Your task to perform on an android device: install app "DuckDuckGo Privacy Browser" Image 0: 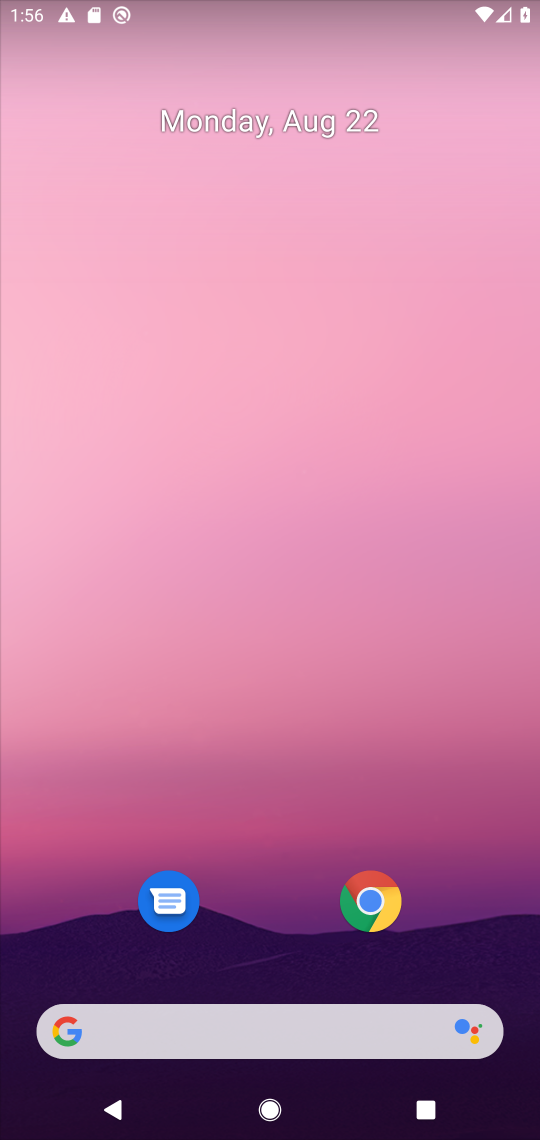
Step 0: drag from (504, 984) to (428, 189)
Your task to perform on an android device: install app "DuckDuckGo Privacy Browser" Image 1: 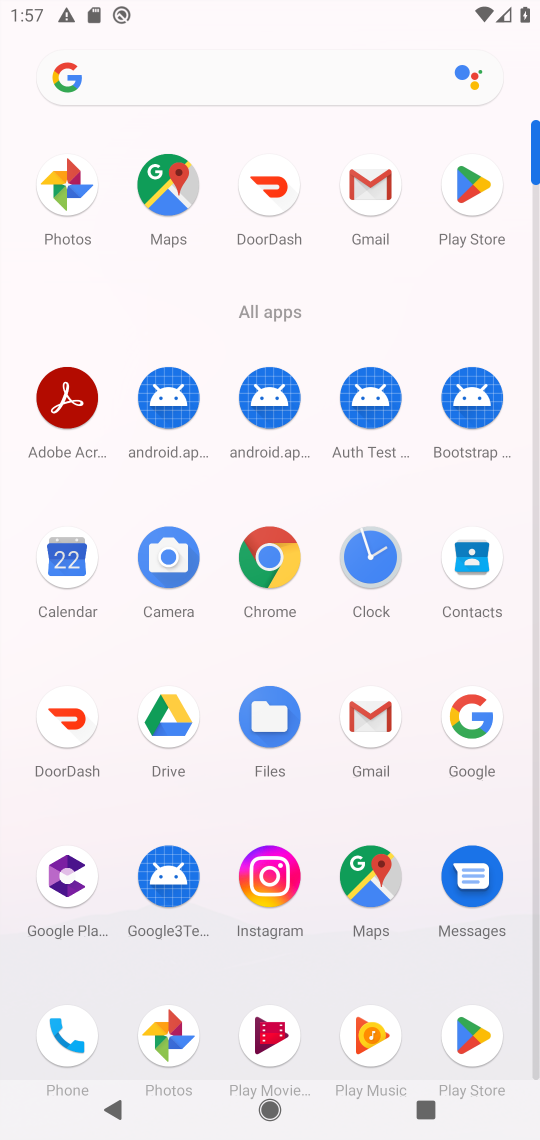
Step 1: click (468, 1037)
Your task to perform on an android device: install app "DuckDuckGo Privacy Browser" Image 2: 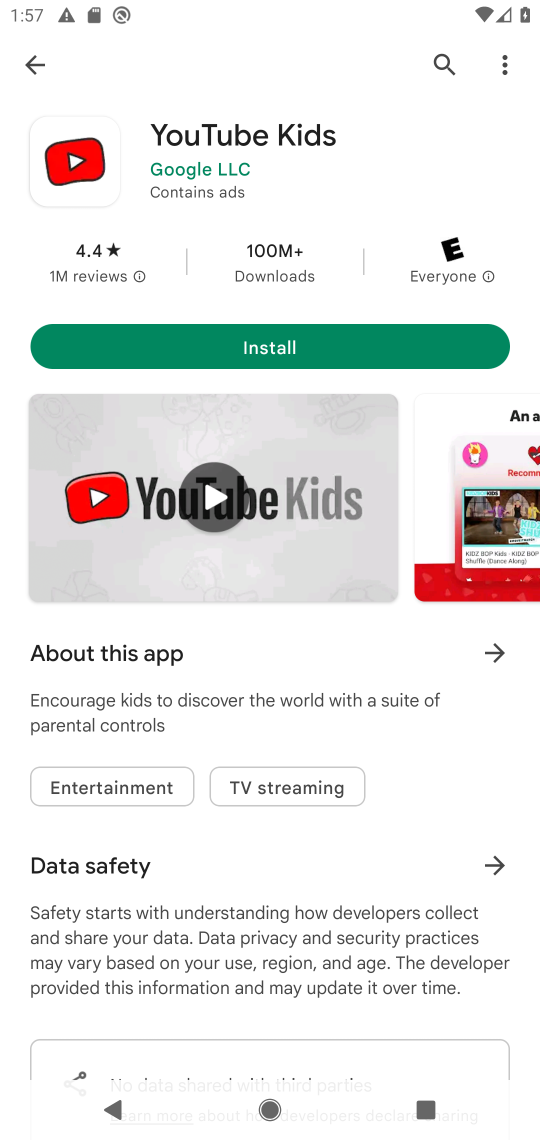
Step 2: click (438, 57)
Your task to perform on an android device: install app "DuckDuckGo Privacy Browser" Image 3: 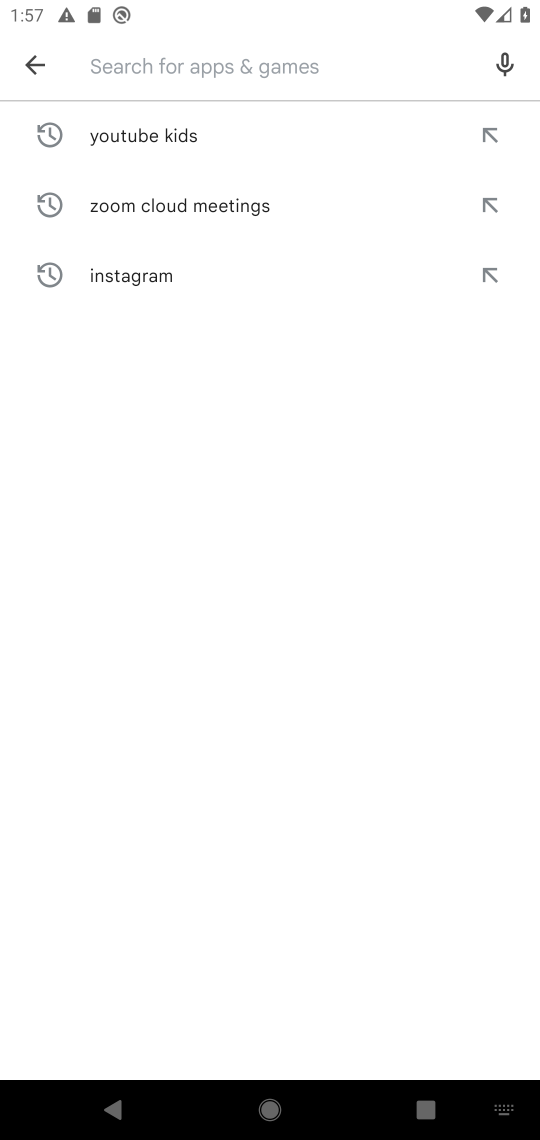
Step 3: type "DuckDuckGo Privacy Browser"
Your task to perform on an android device: install app "DuckDuckGo Privacy Browser" Image 4: 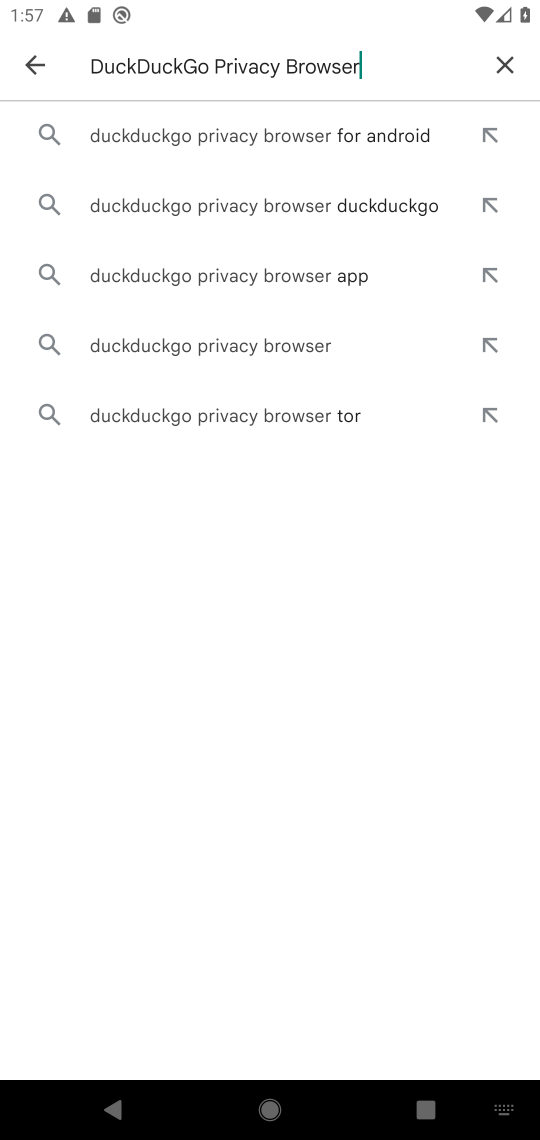
Step 4: click (196, 342)
Your task to perform on an android device: install app "DuckDuckGo Privacy Browser" Image 5: 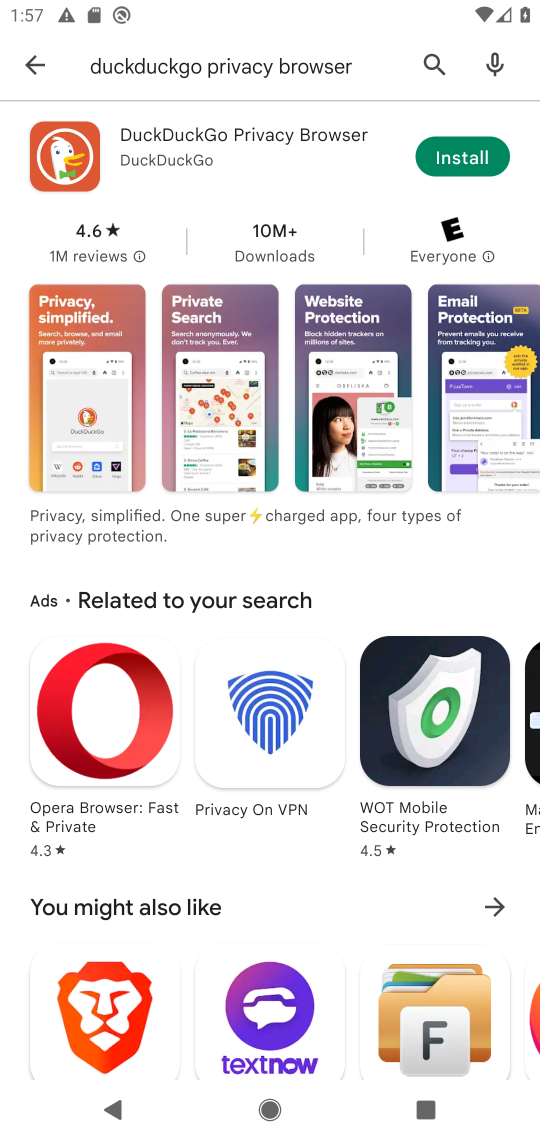
Step 5: click (184, 139)
Your task to perform on an android device: install app "DuckDuckGo Privacy Browser" Image 6: 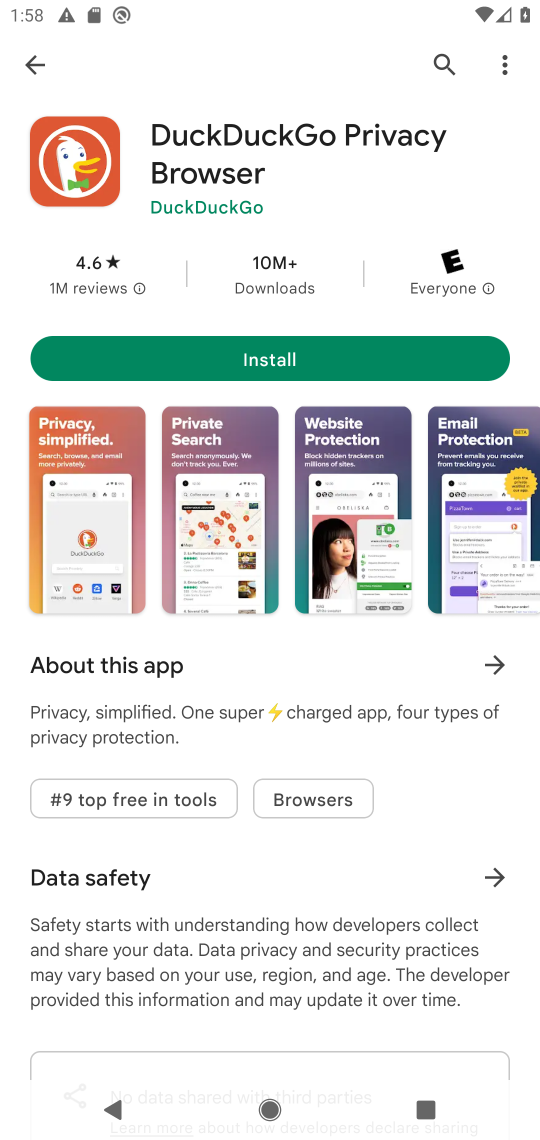
Step 6: click (270, 365)
Your task to perform on an android device: install app "DuckDuckGo Privacy Browser" Image 7: 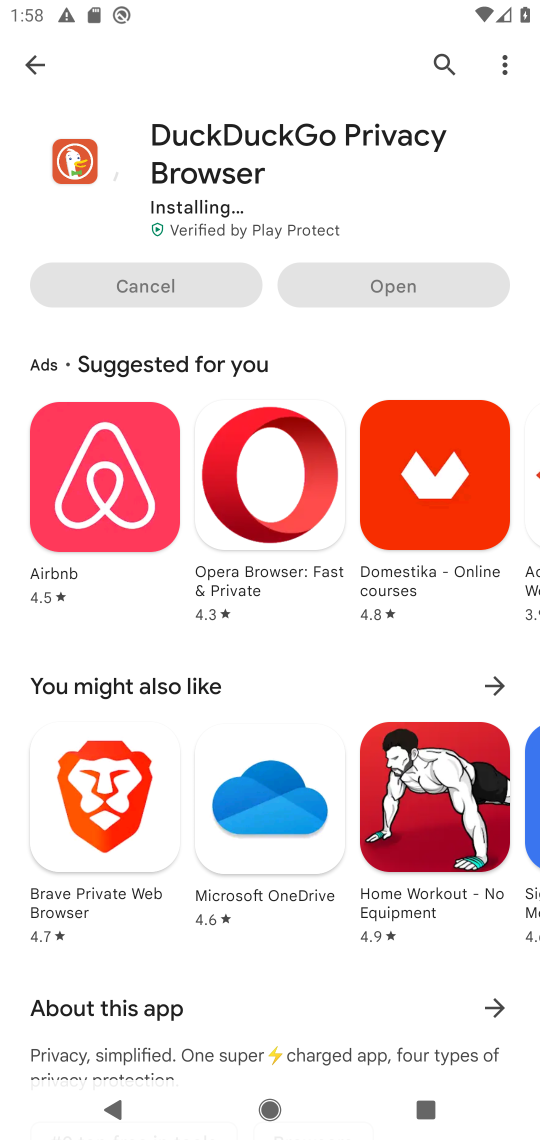
Step 7: task complete